Your task to perform on an android device: Open Google Maps and go to "Timeline" Image 0: 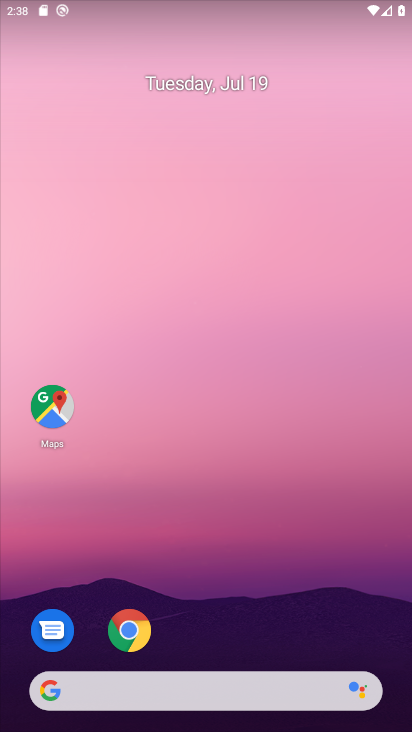
Step 0: click (41, 395)
Your task to perform on an android device: Open Google Maps and go to "Timeline" Image 1: 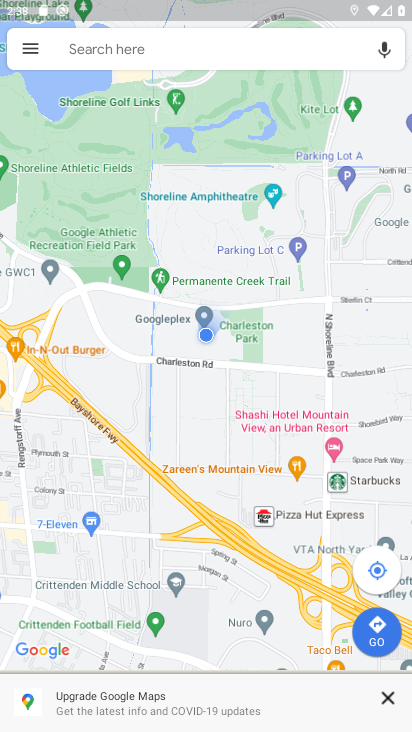
Step 1: click (22, 50)
Your task to perform on an android device: Open Google Maps and go to "Timeline" Image 2: 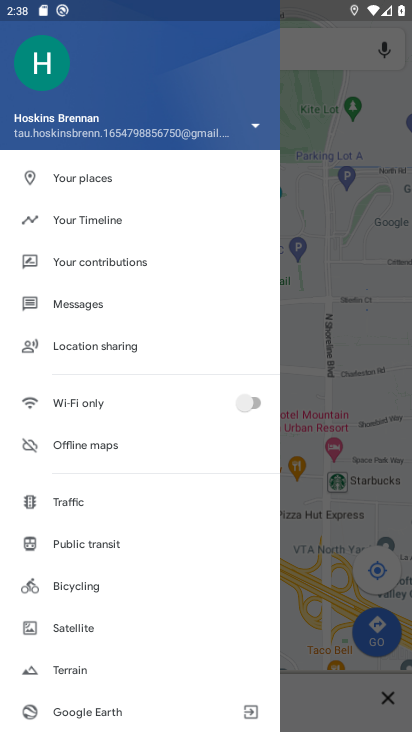
Step 2: click (91, 217)
Your task to perform on an android device: Open Google Maps and go to "Timeline" Image 3: 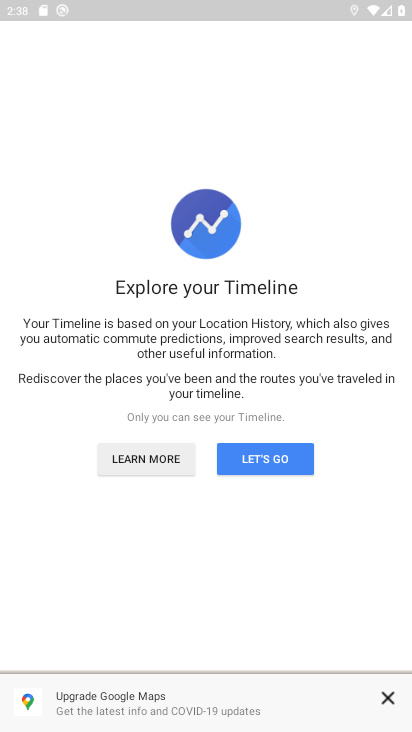
Step 3: click (247, 461)
Your task to perform on an android device: Open Google Maps and go to "Timeline" Image 4: 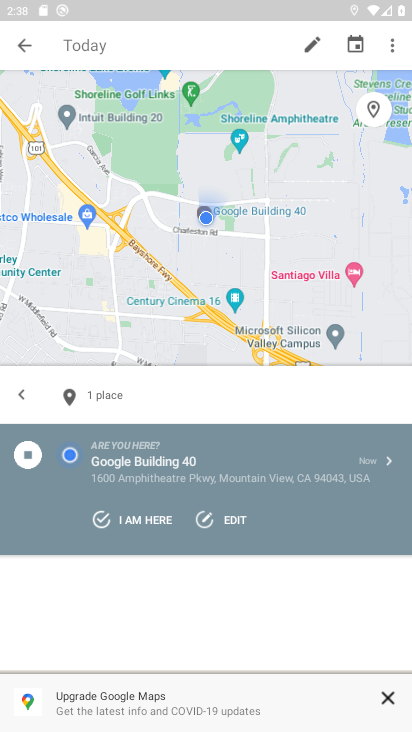
Step 4: task complete